Your task to perform on an android device: Go to Amazon Image 0: 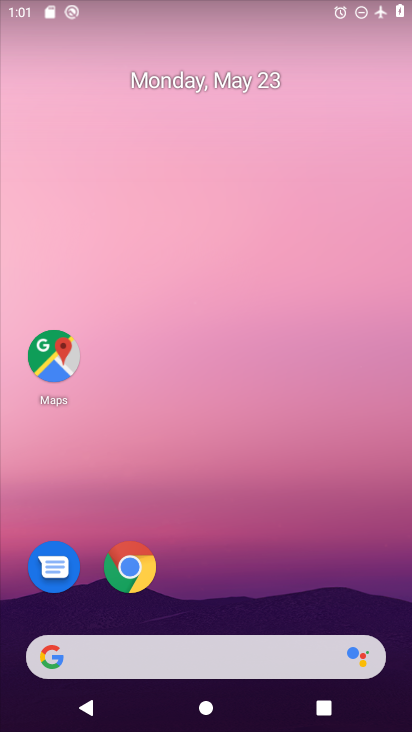
Step 0: click (118, 546)
Your task to perform on an android device: Go to Amazon Image 1: 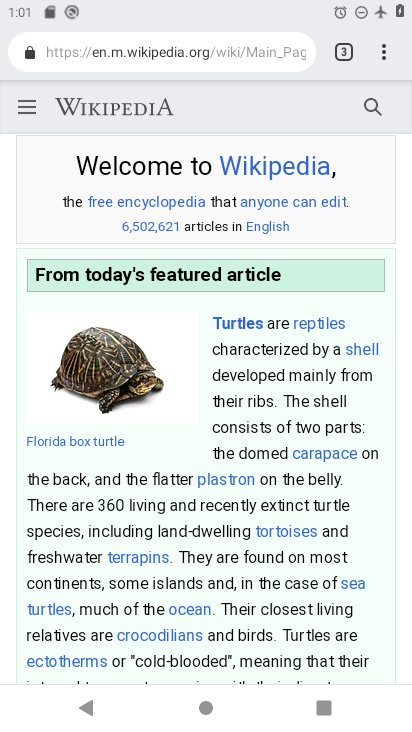
Step 1: click (347, 41)
Your task to perform on an android device: Go to Amazon Image 2: 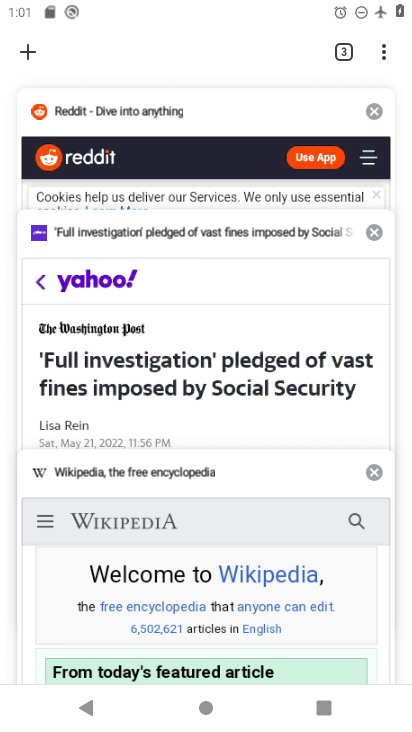
Step 2: click (18, 56)
Your task to perform on an android device: Go to Amazon Image 3: 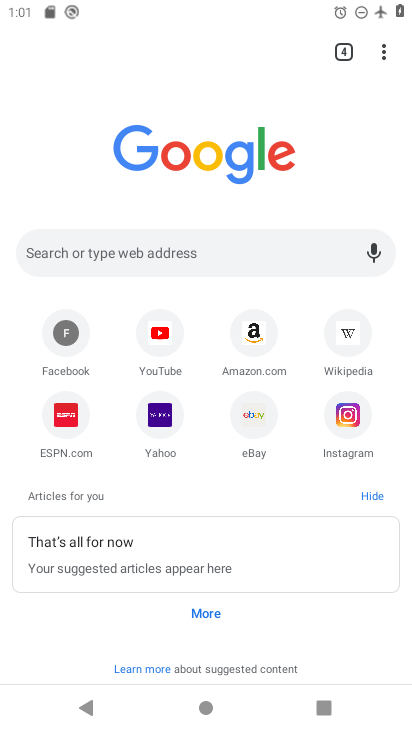
Step 3: click (238, 331)
Your task to perform on an android device: Go to Amazon Image 4: 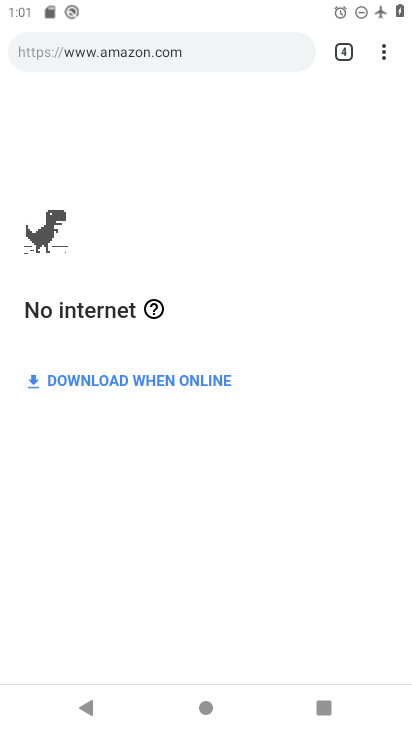
Step 4: task complete